Your task to perform on an android device: Open Google Chrome and click the shortcut for Amazon.com Image 0: 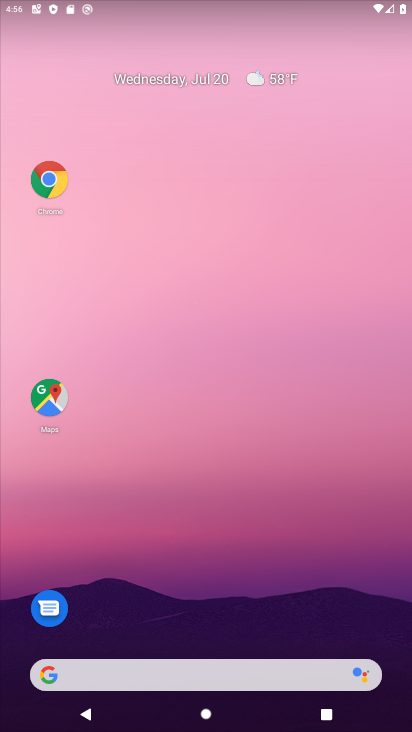
Step 0: click (39, 174)
Your task to perform on an android device: Open Google Chrome and click the shortcut for Amazon.com Image 1: 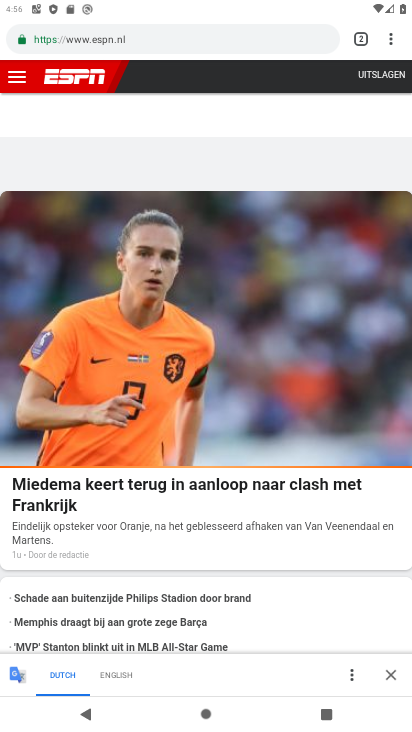
Step 1: click (359, 36)
Your task to perform on an android device: Open Google Chrome and click the shortcut for Amazon.com Image 2: 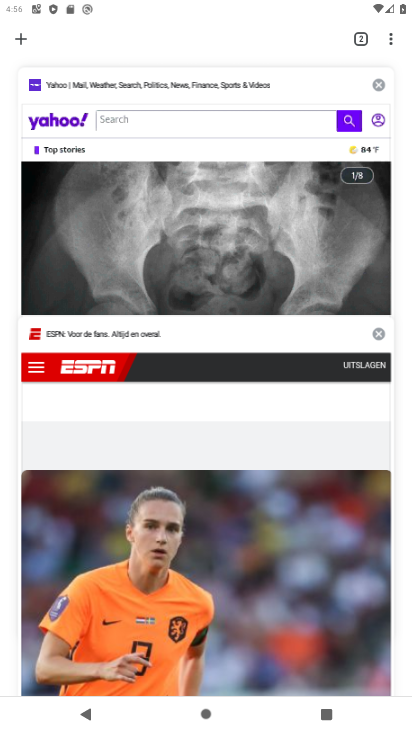
Step 2: click (17, 35)
Your task to perform on an android device: Open Google Chrome and click the shortcut for Amazon.com Image 3: 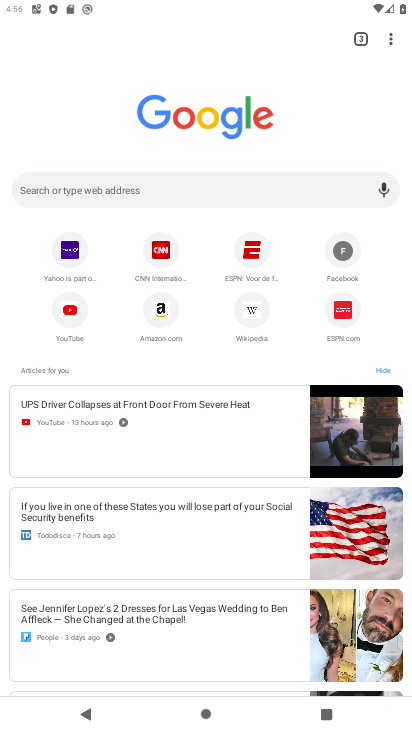
Step 3: click (155, 303)
Your task to perform on an android device: Open Google Chrome and click the shortcut for Amazon.com Image 4: 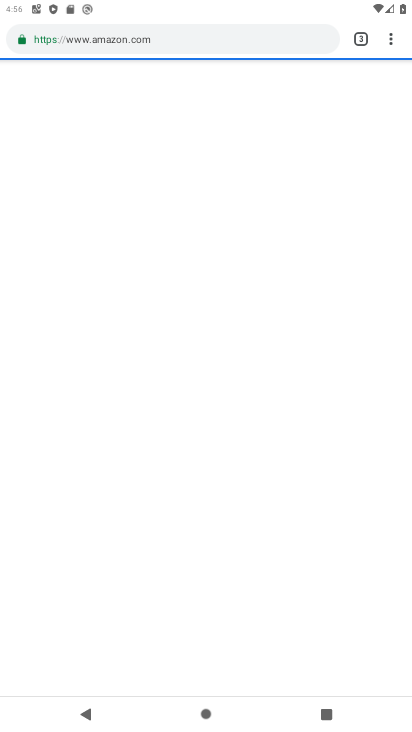
Step 4: task complete